Your task to perform on an android device: How do I get to the nearest grocery store? Image 0: 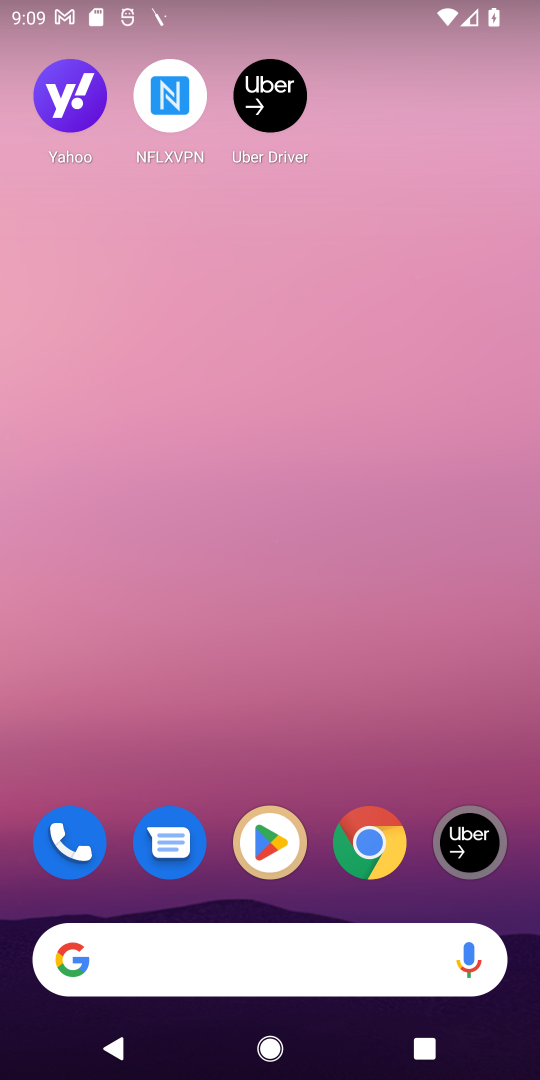
Step 0: click (374, 853)
Your task to perform on an android device: How do I get to the nearest grocery store? Image 1: 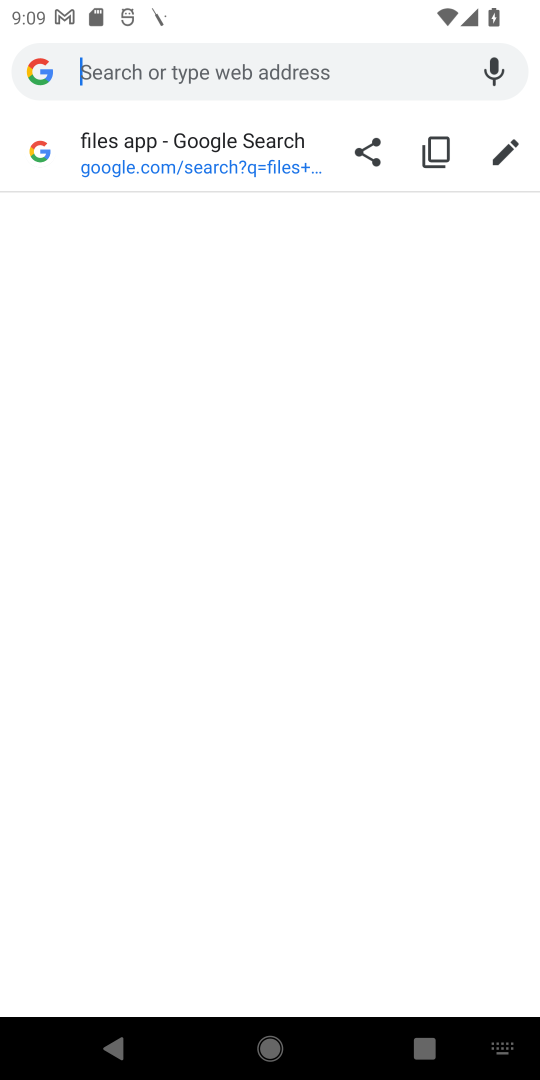
Step 1: type "nearest grocery store"
Your task to perform on an android device: How do I get to the nearest grocery store? Image 2: 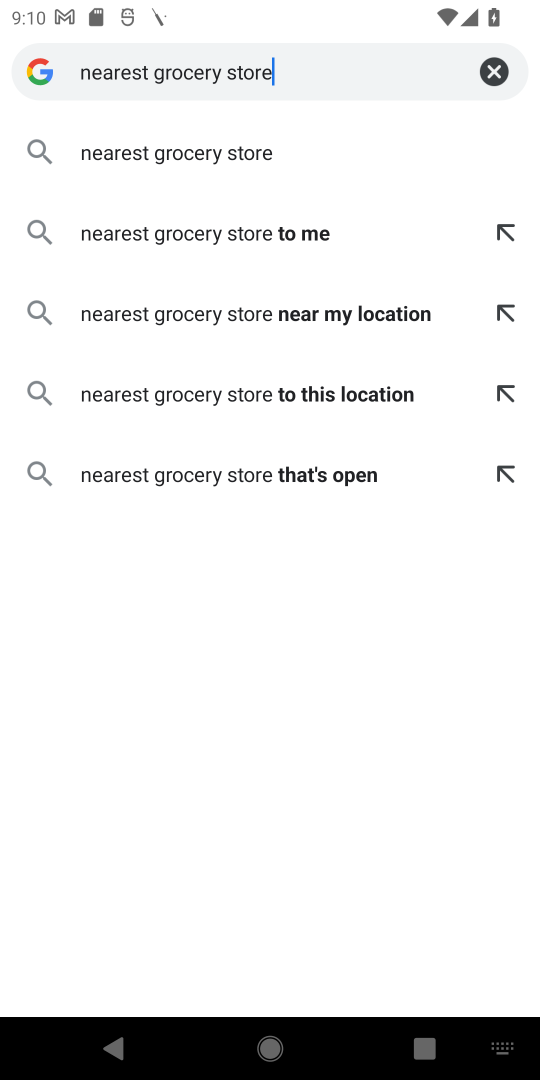
Step 2: click (196, 150)
Your task to perform on an android device: How do I get to the nearest grocery store? Image 3: 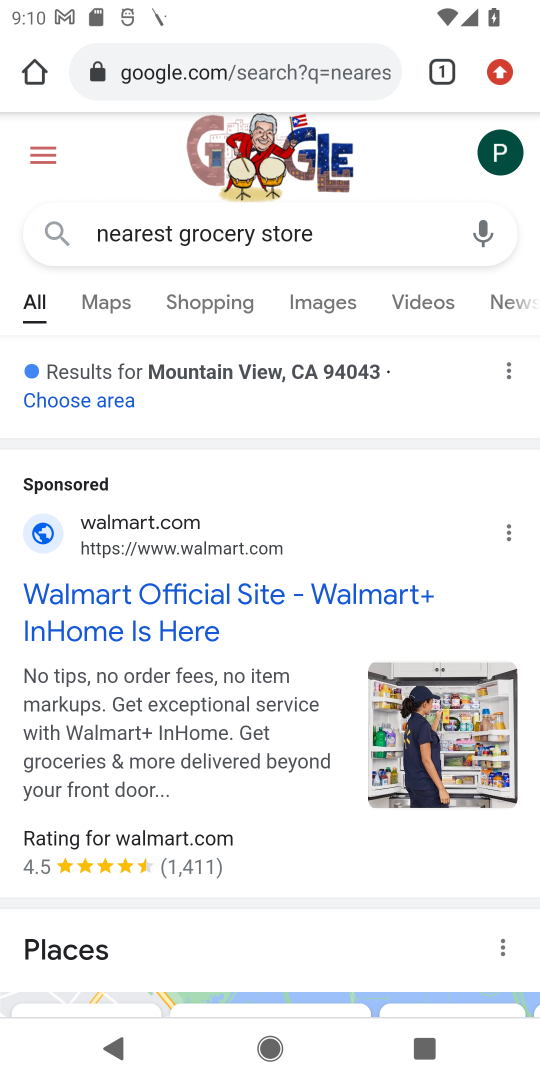
Step 3: drag from (249, 628) to (306, 410)
Your task to perform on an android device: How do I get to the nearest grocery store? Image 4: 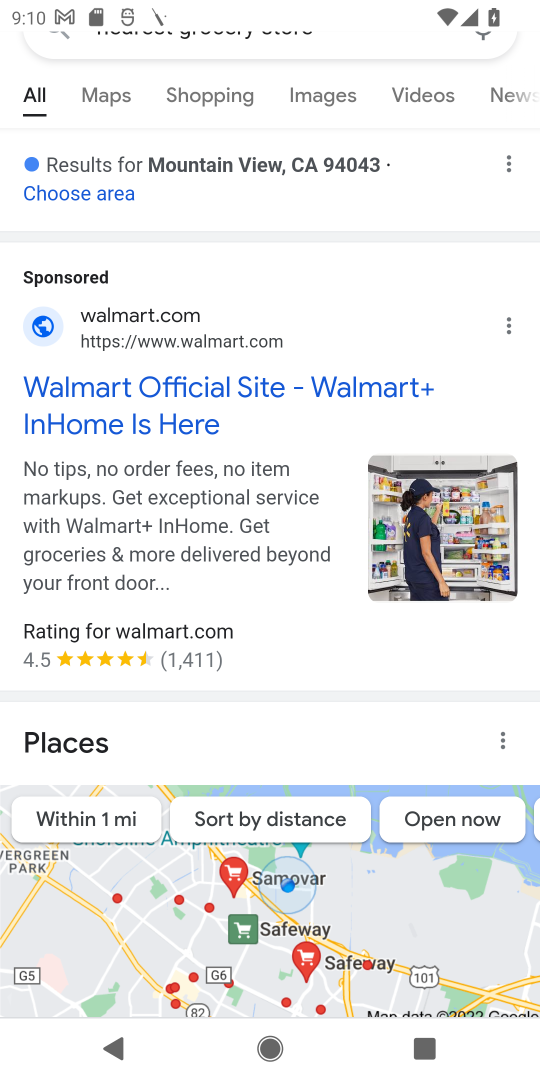
Step 4: drag from (133, 898) to (248, 450)
Your task to perform on an android device: How do I get to the nearest grocery store? Image 5: 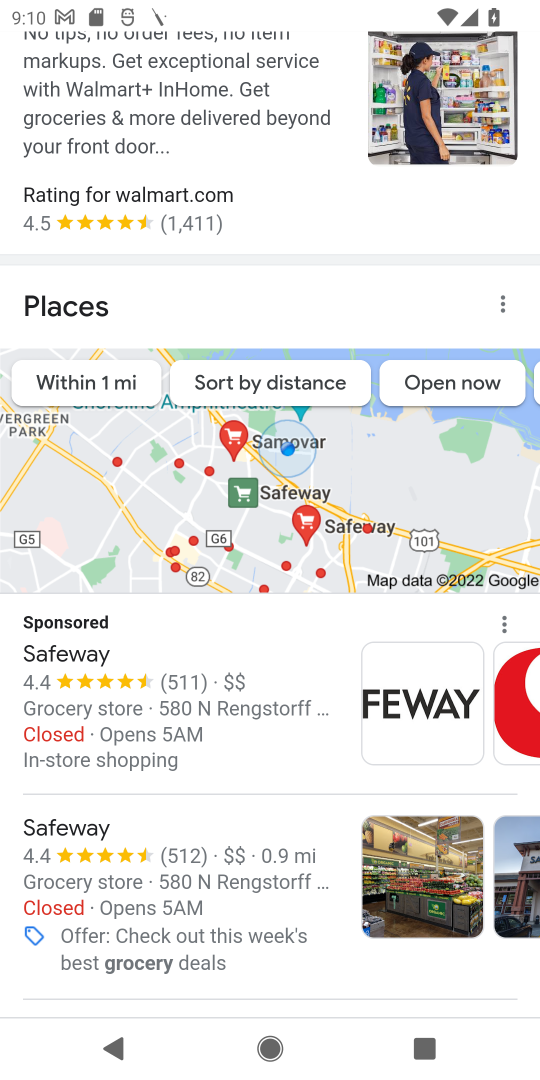
Step 5: drag from (178, 834) to (248, 459)
Your task to perform on an android device: How do I get to the nearest grocery store? Image 6: 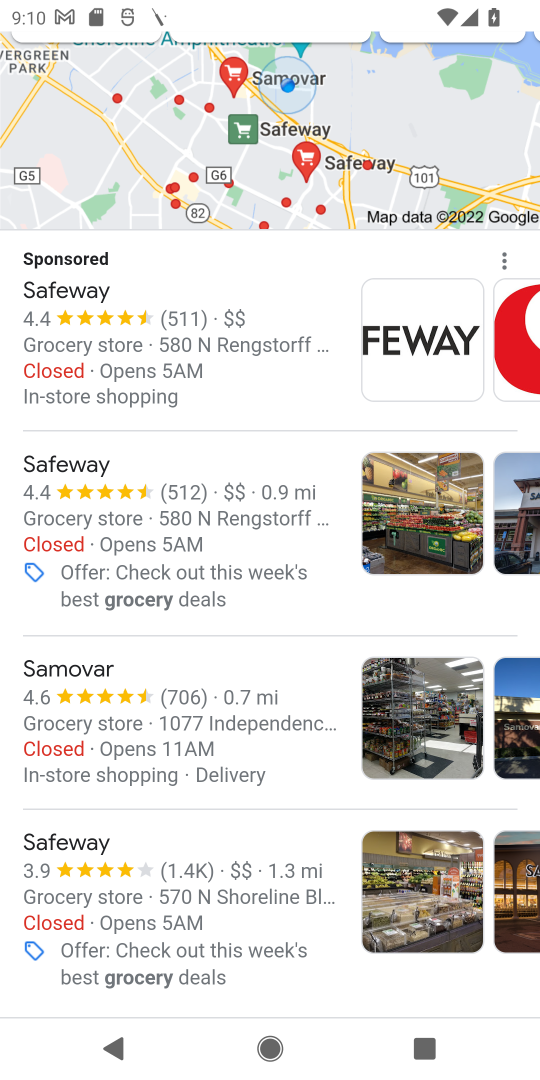
Step 6: drag from (208, 768) to (263, 420)
Your task to perform on an android device: How do I get to the nearest grocery store? Image 7: 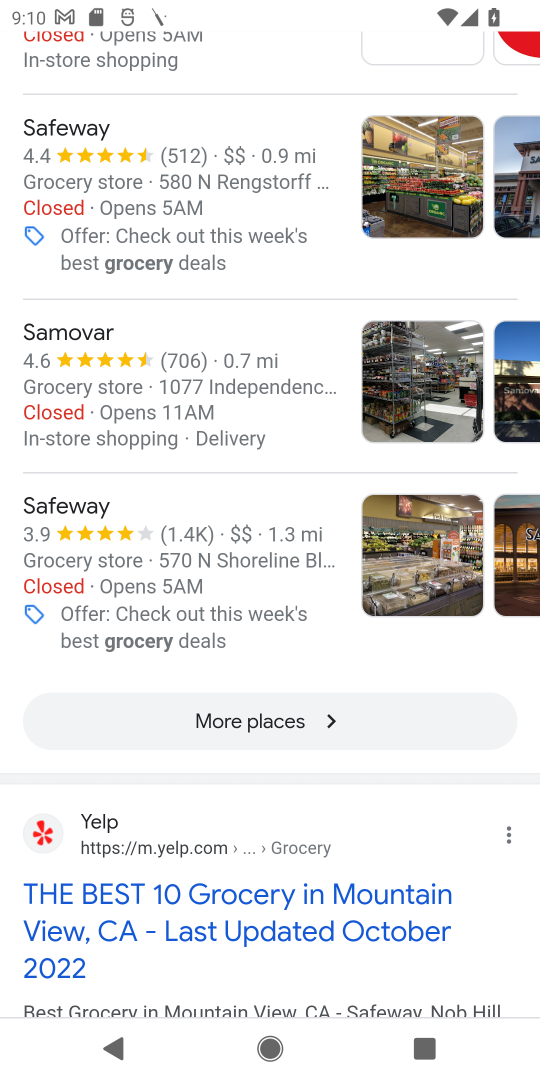
Step 7: drag from (283, 635) to (334, 415)
Your task to perform on an android device: How do I get to the nearest grocery store? Image 8: 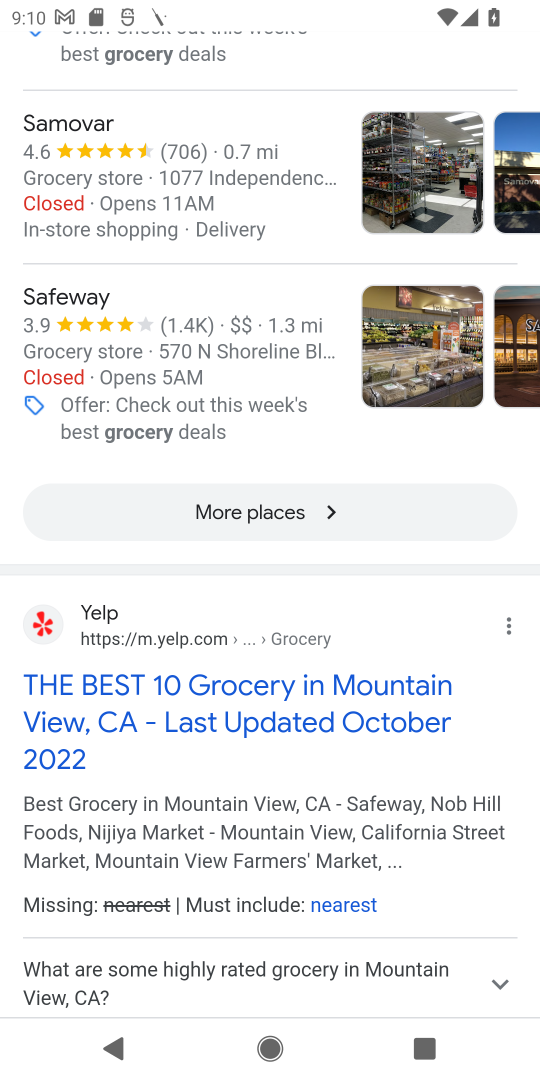
Step 8: click (255, 687)
Your task to perform on an android device: How do I get to the nearest grocery store? Image 9: 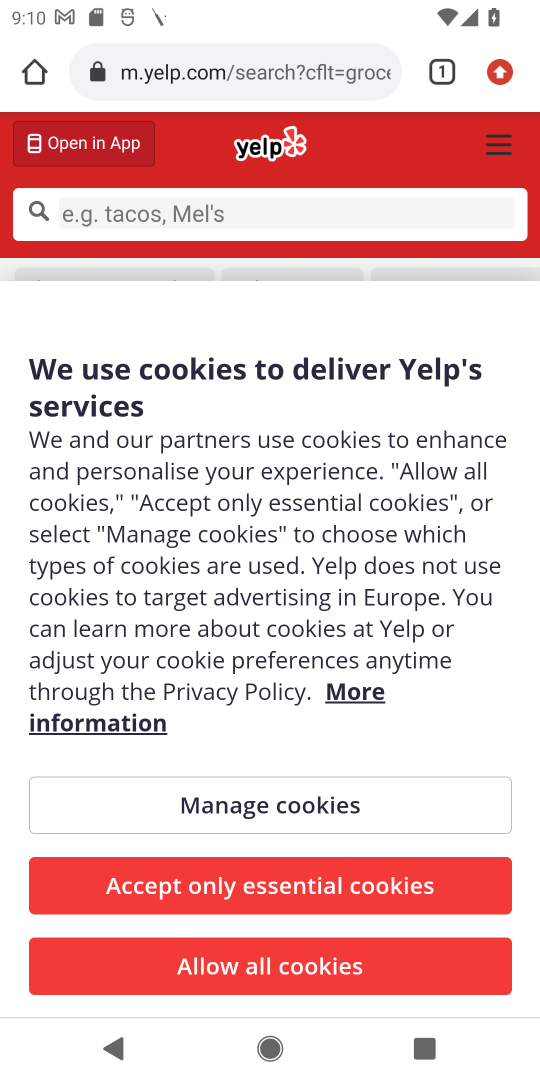
Step 9: click (198, 808)
Your task to perform on an android device: How do I get to the nearest grocery store? Image 10: 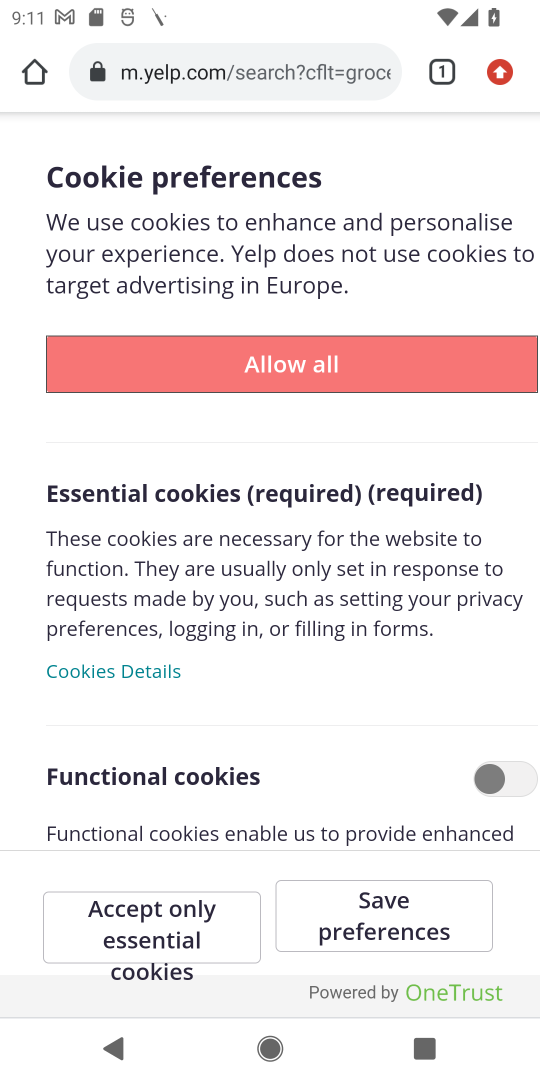
Step 10: drag from (114, 675) to (168, 347)
Your task to perform on an android device: How do I get to the nearest grocery store? Image 11: 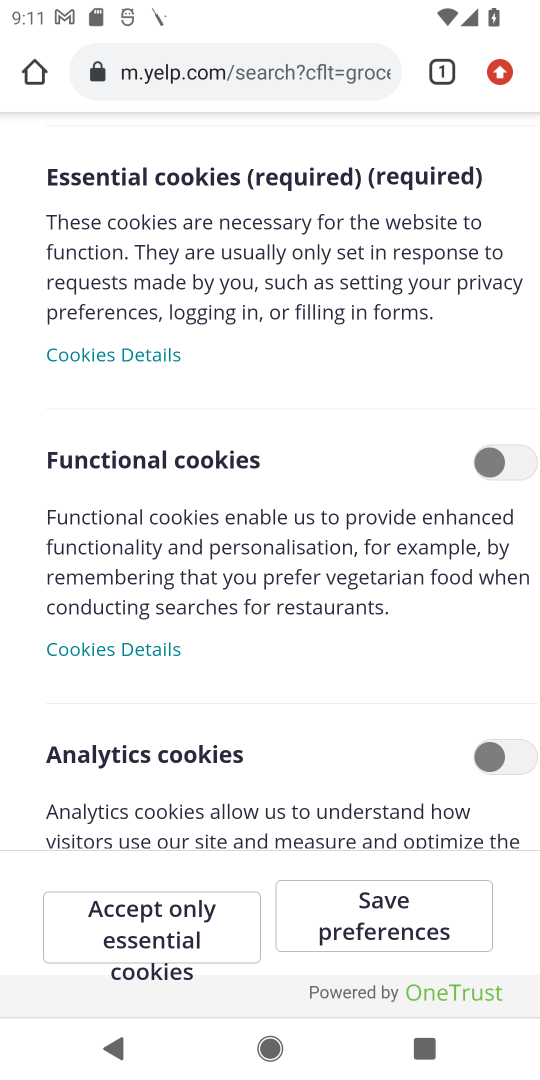
Step 11: drag from (136, 651) to (148, 339)
Your task to perform on an android device: How do I get to the nearest grocery store? Image 12: 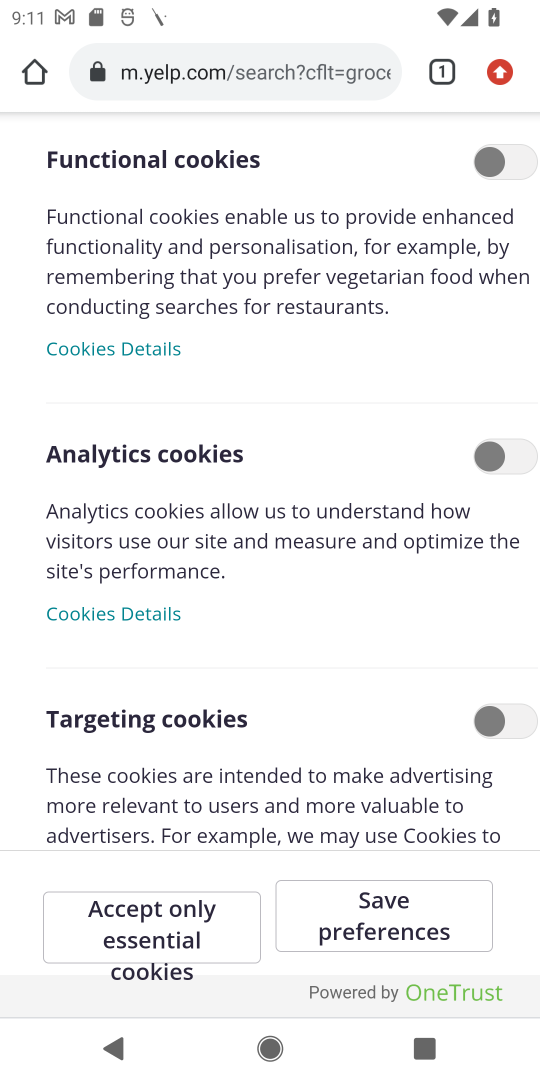
Step 12: drag from (240, 663) to (278, 315)
Your task to perform on an android device: How do I get to the nearest grocery store? Image 13: 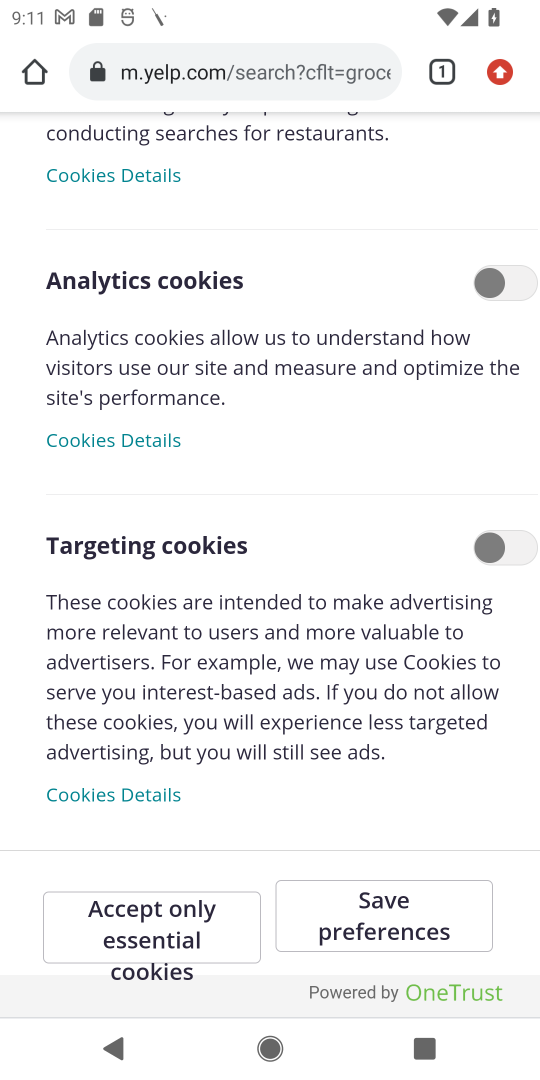
Step 13: drag from (164, 651) to (236, 277)
Your task to perform on an android device: How do I get to the nearest grocery store? Image 14: 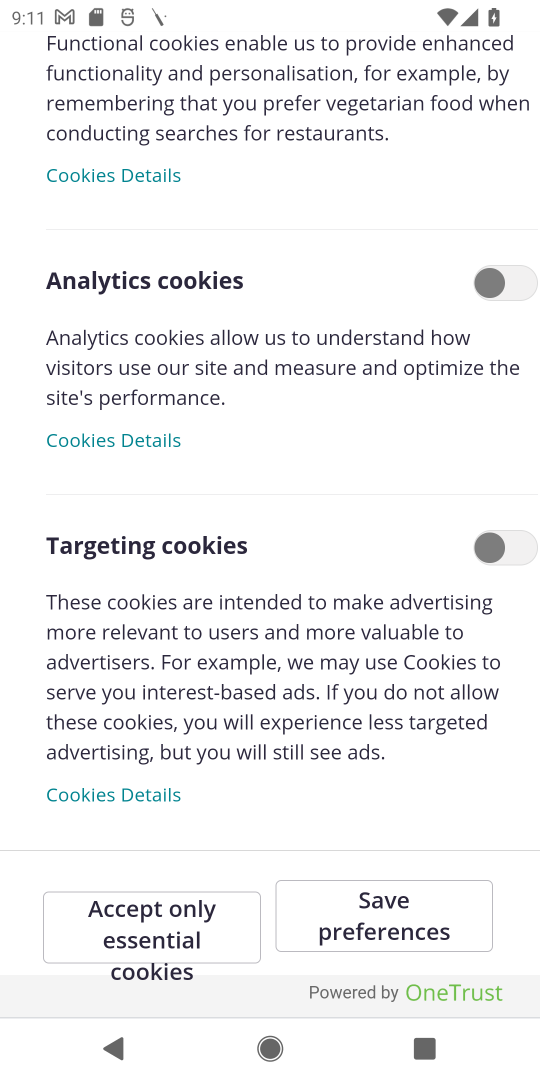
Step 14: drag from (267, 258) to (257, 863)
Your task to perform on an android device: How do I get to the nearest grocery store? Image 15: 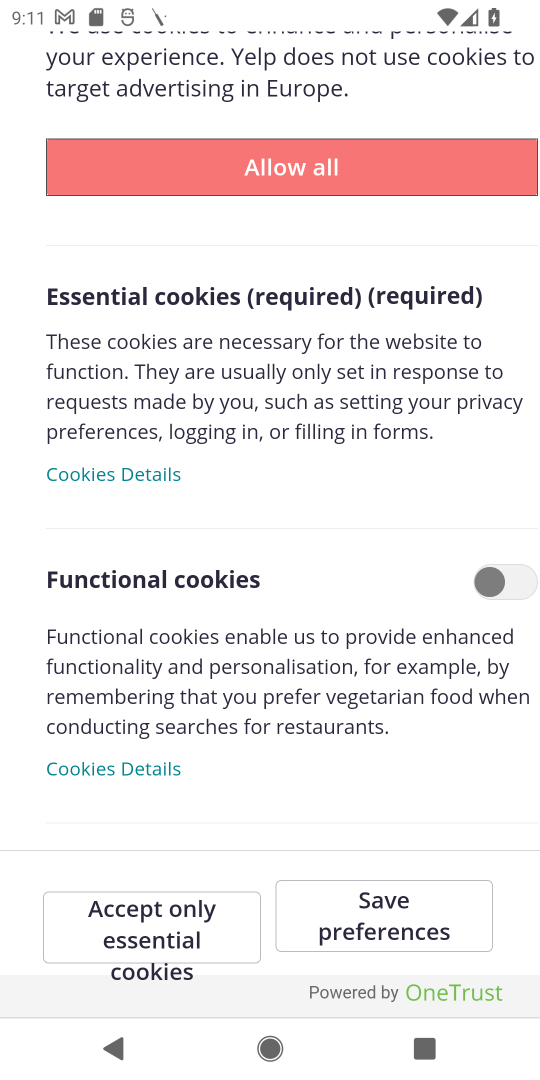
Step 15: drag from (289, 238) to (295, 1066)
Your task to perform on an android device: How do I get to the nearest grocery store? Image 16: 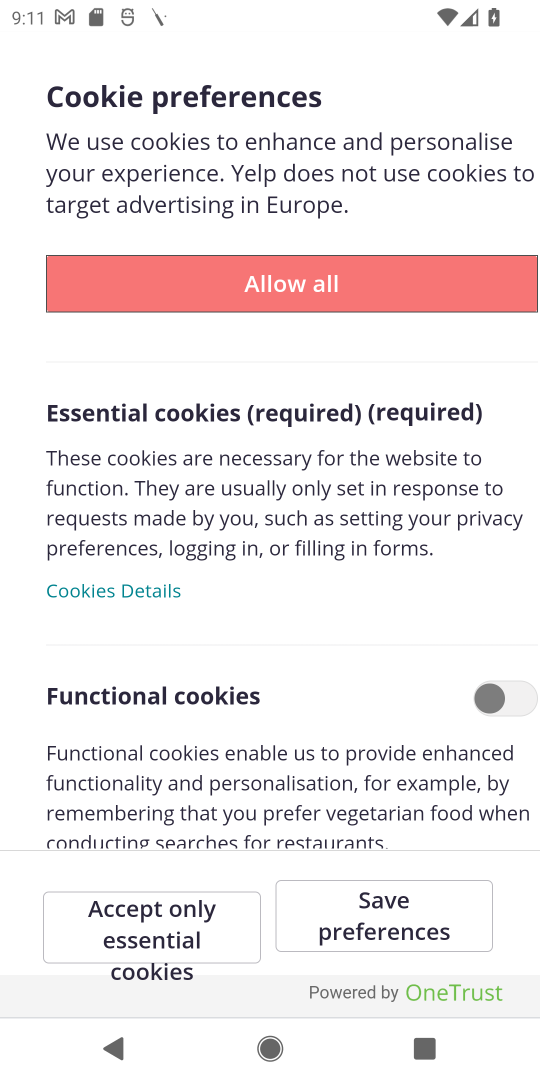
Step 16: drag from (308, 325) to (284, 998)
Your task to perform on an android device: How do I get to the nearest grocery store? Image 17: 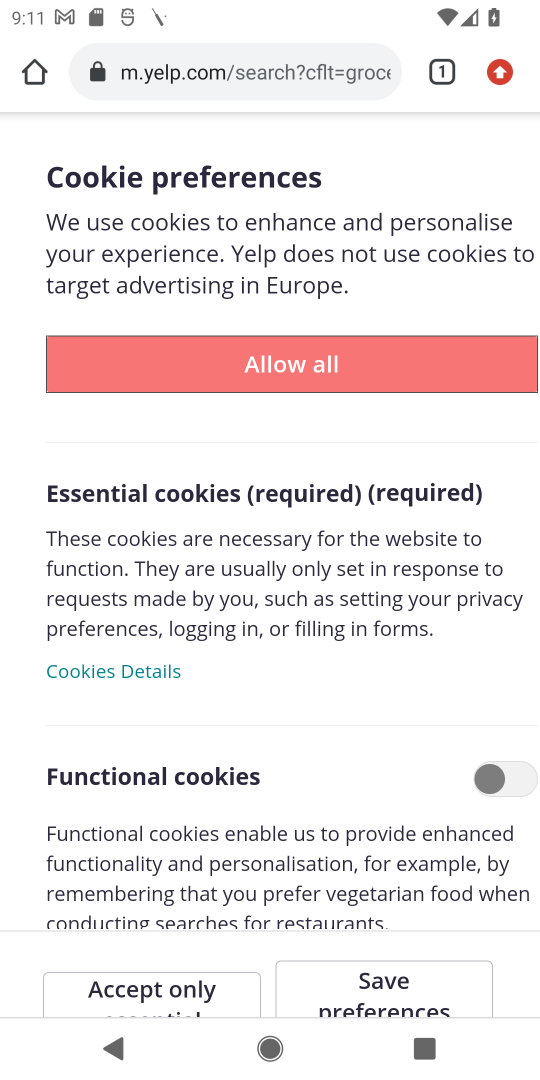
Step 17: drag from (114, 264) to (65, 993)
Your task to perform on an android device: How do I get to the nearest grocery store? Image 18: 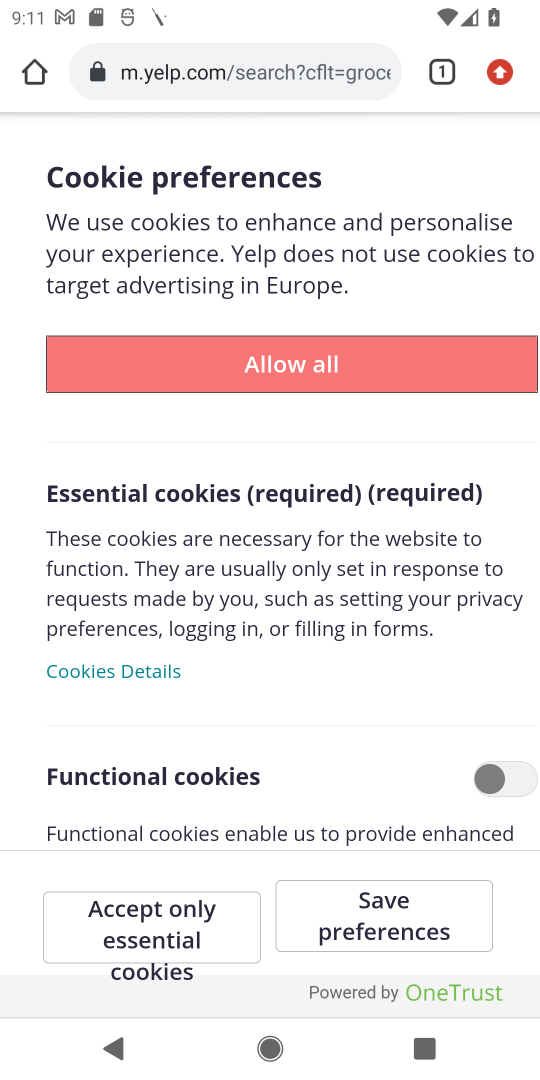
Step 18: drag from (53, 198) to (40, 751)
Your task to perform on an android device: How do I get to the nearest grocery store? Image 19: 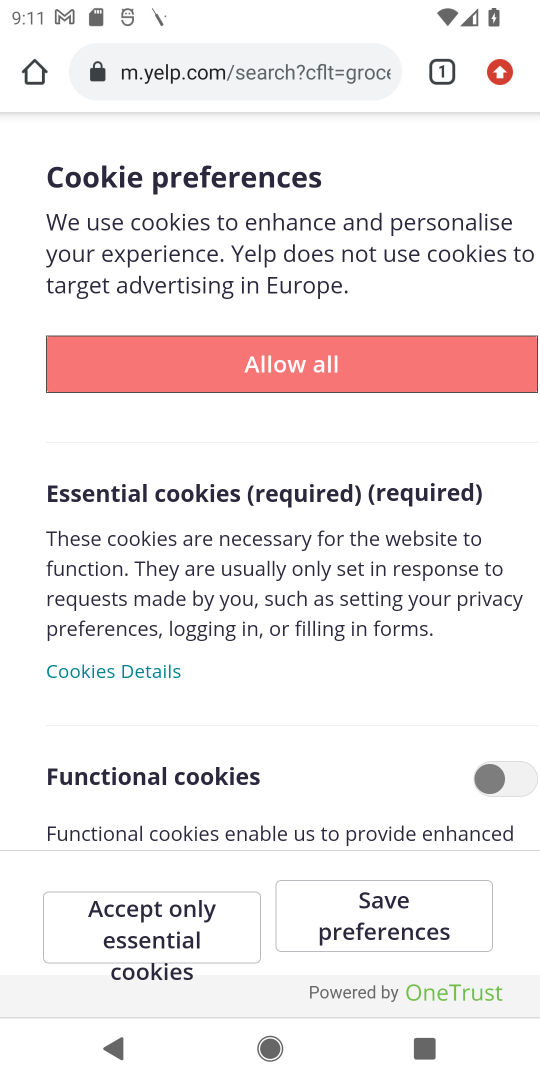
Step 19: click (239, 363)
Your task to perform on an android device: How do I get to the nearest grocery store? Image 20: 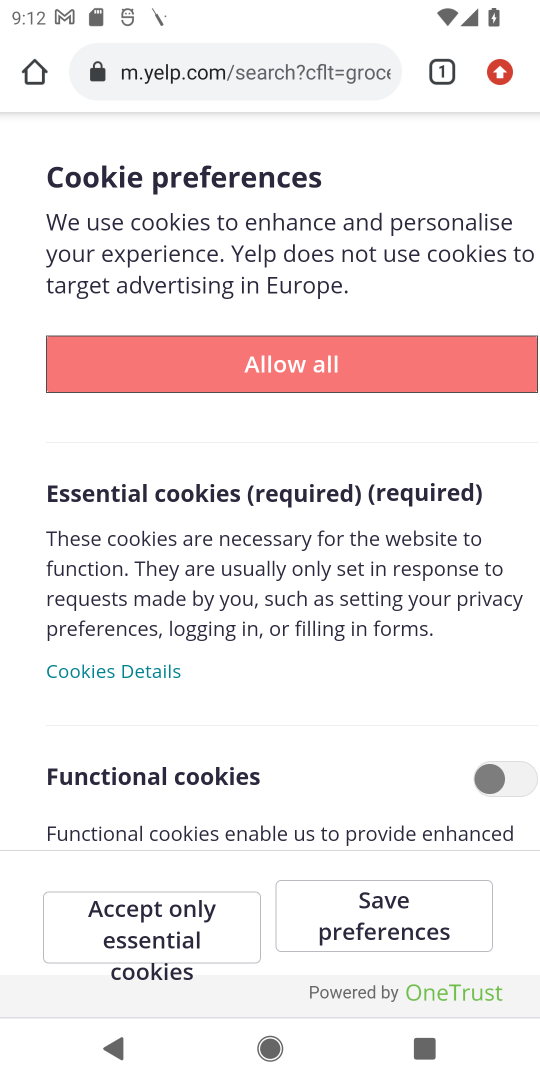
Step 20: task complete